Your task to perform on an android device: See recent photos Image 0: 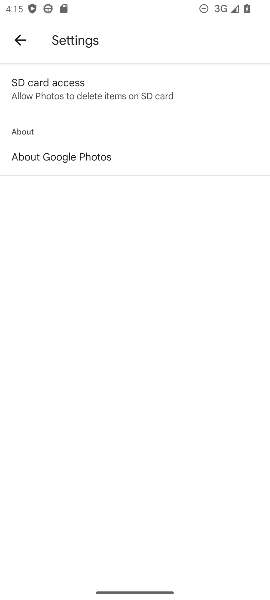
Step 0: press home button
Your task to perform on an android device: See recent photos Image 1: 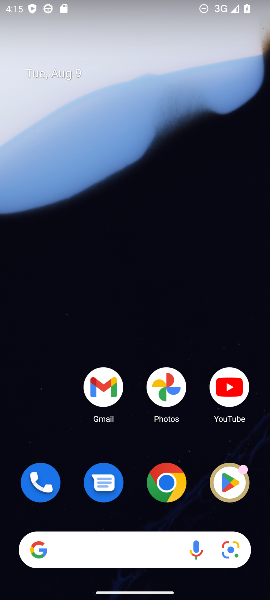
Step 1: click (165, 385)
Your task to perform on an android device: See recent photos Image 2: 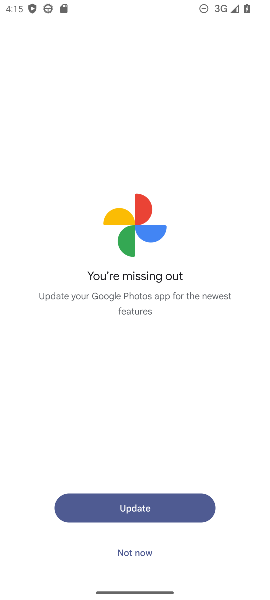
Step 2: click (146, 553)
Your task to perform on an android device: See recent photos Image 3: 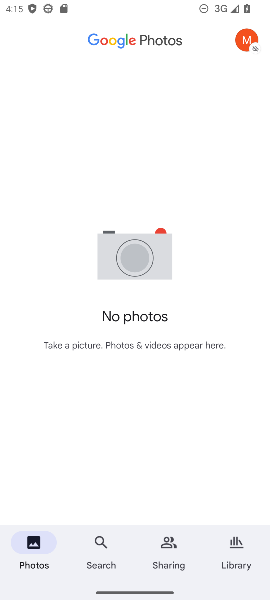
Step 3: task complete